Your task to perform on an android device: open app "Venmo" (install if not already installed), go to login, and select forgot password Image 0: 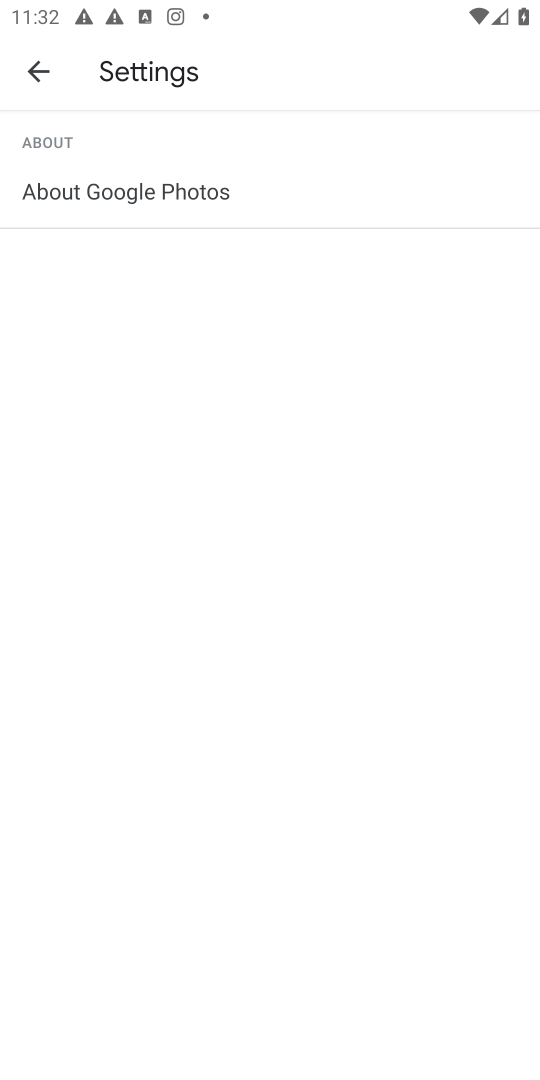
Step 0: press home button
Your task to perform on an android device: open app "Venmo" (install if not already installed), go to login, and select forgot password Image 1: 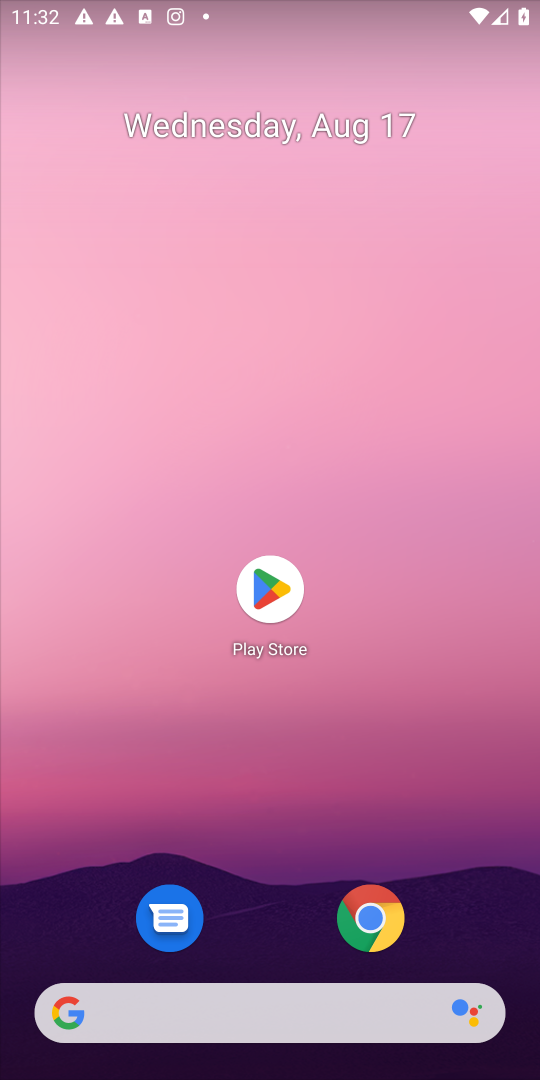
Step 1: click (264, 577)
Your task to perform on an android device: open app "Venmo" (install if not already installed), go to login, and select forgot password Image 2: 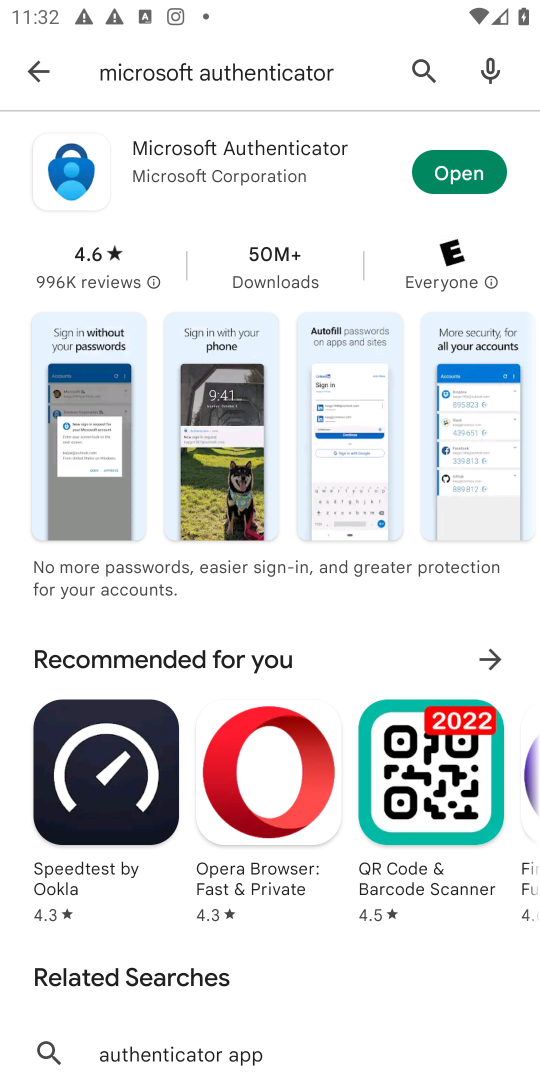
Step 2: click (418, 68)
Your task to perform on an android device: open app "Venmo" (install if not already installed), go to login, and select forgot password Image 3: 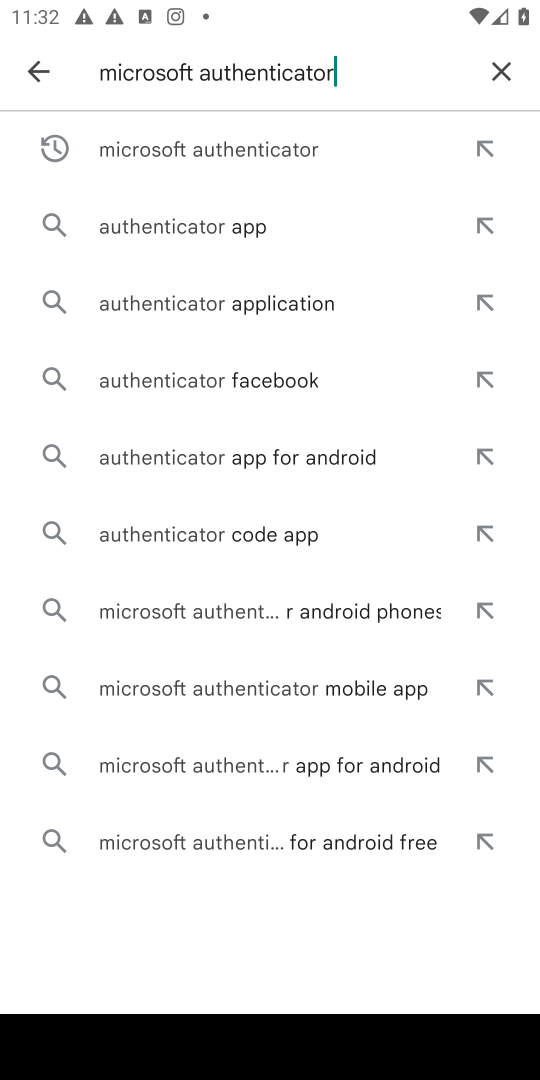
Step 3: click (494, 71)
Your task to perform on an android device: open app "Venmo" (install if not already installed), go to login, and select forgot password Image 4: 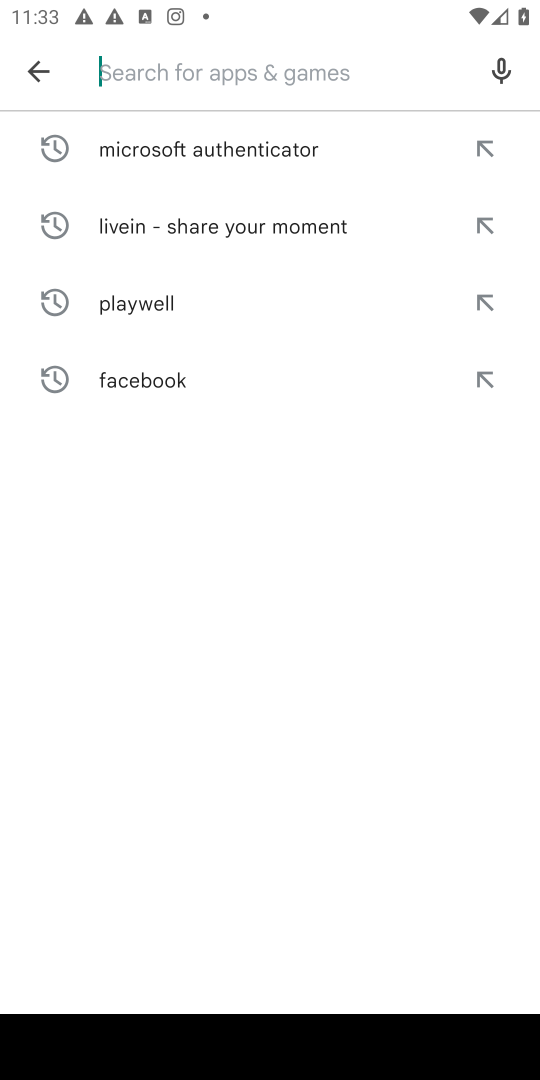
Step 4: type "Venmo"
Your task to perform on an android device: open app "Venmo" (install if not already installed), go to login, and select forgot password Image 5: 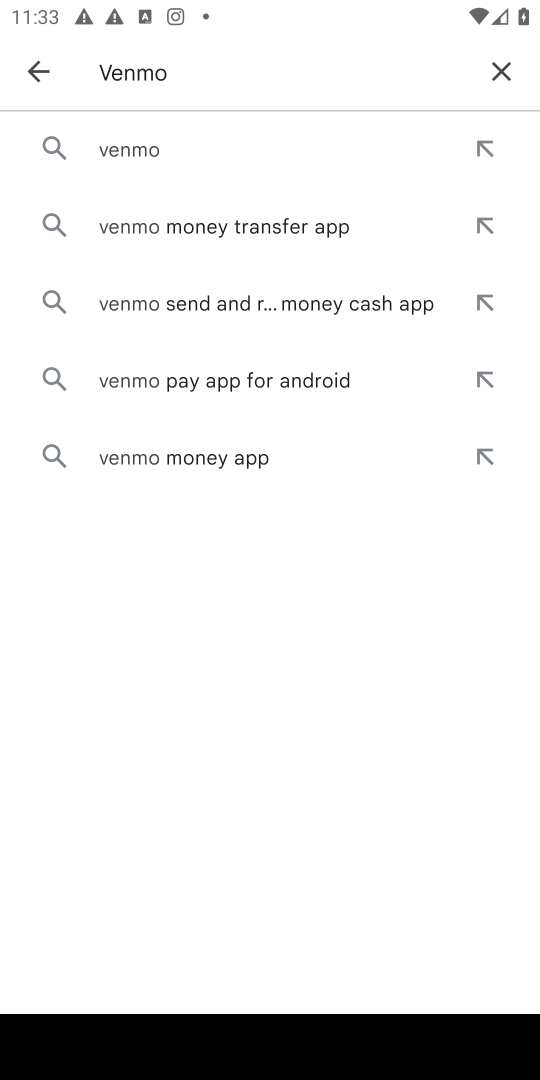
Step 5: click (141, 147)
Your task to perform on an android device: open app "Venmo" (install if not already installed), go to login, and select forgot password Image 6: 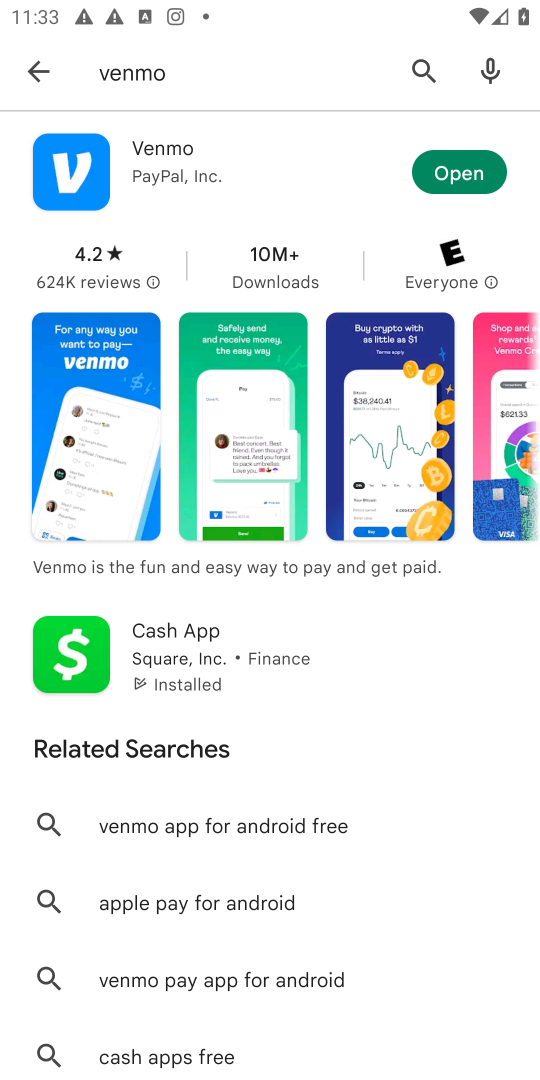
Step 6: click (454, 189)
Your task to perform on an android device: open app "Venmo" (install if not already installed), go to login, and select forgot password Image 7: 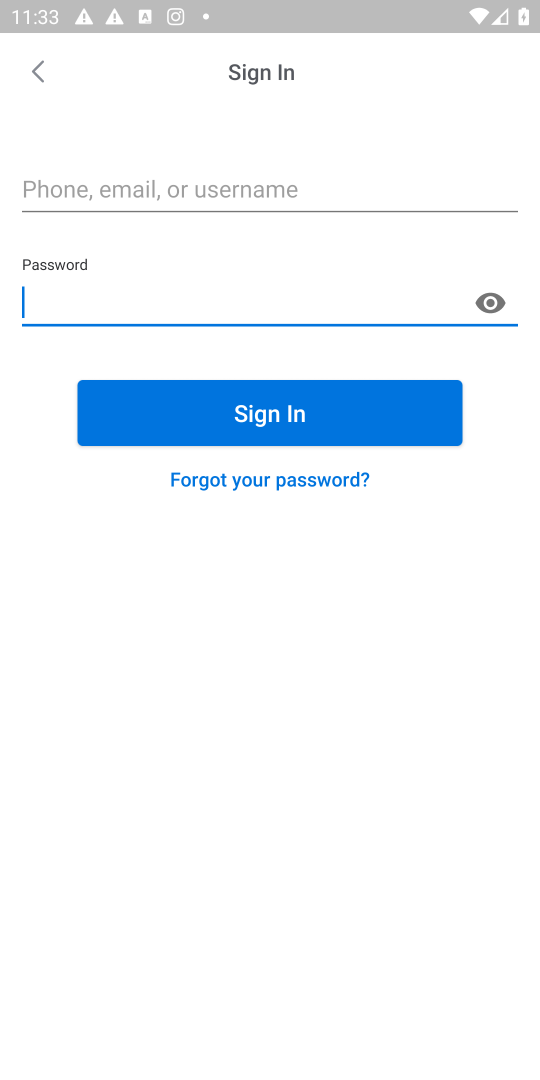
Step 7: click (314, 475)
Your task to perform on an android device: open app "Venmo" (install if not already installed), go to login, and select forgot password Image 8: 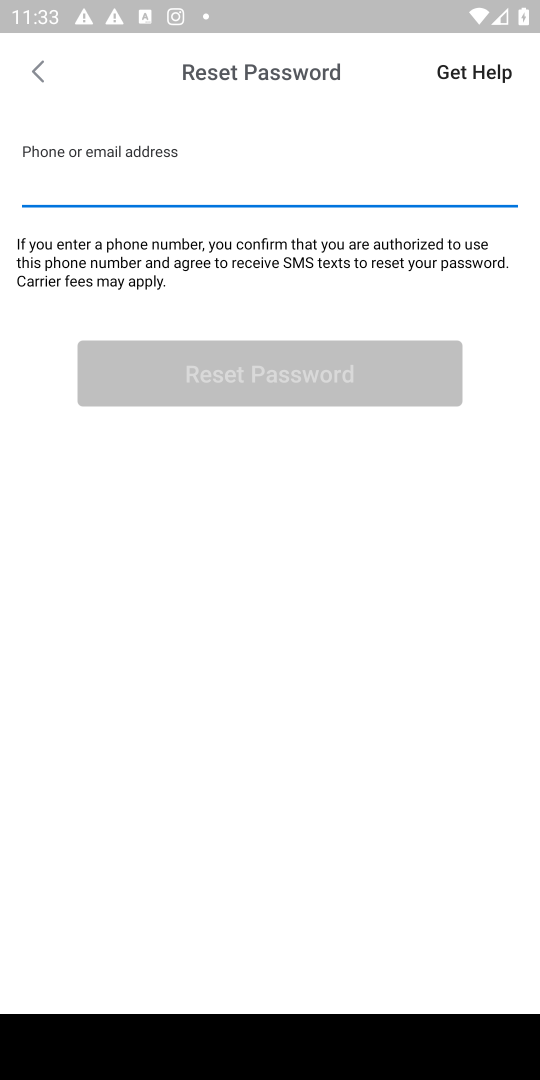
Step 8: task complete